Your task to perform on an android device: Search for sushi restaurants on Maps Image 0: 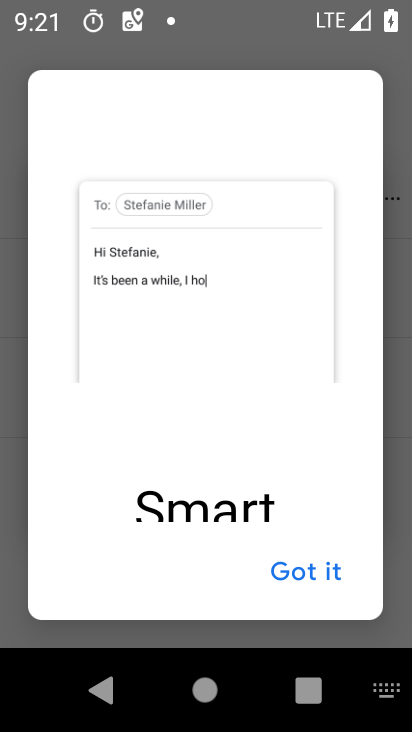
Step 0: click (315, 565)
Your task to perform on an android device: Search for sushi restaurants on Maps Image 1: 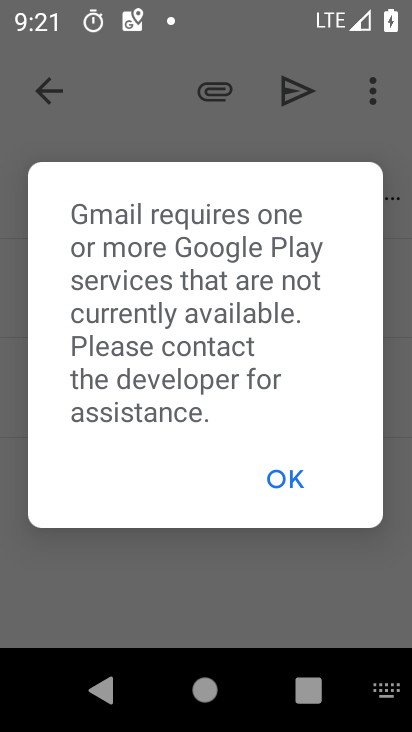
Step 1: press home button
Your task to perform on an android device: Search for sushi restaurants on Maps Image 2: 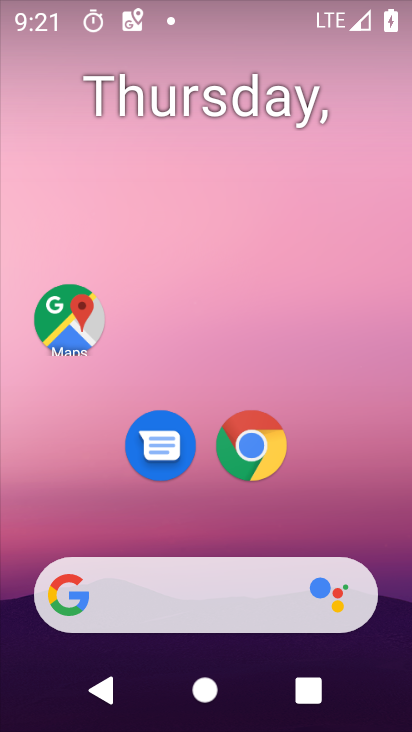
Step 2: drag from (211, 546) to (199, 315)
Your task to perform on an android device: Search for sushi restaurants on Maps Image 3: 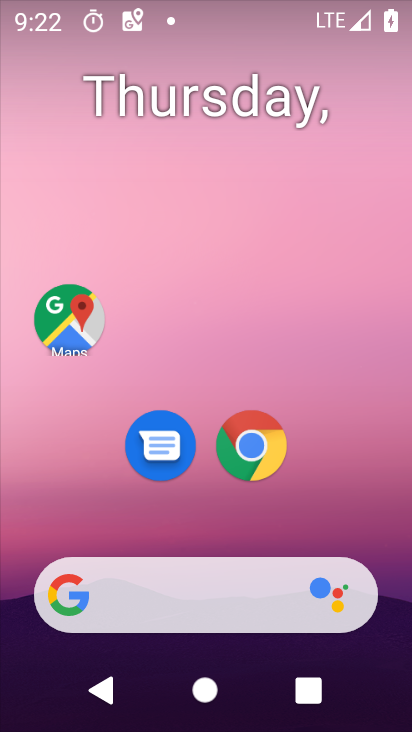
Step 3: drag from (202, 514) to (235, 218)
Your task to perform on an android device: Search for sushi restaurants on Maps Image 4: 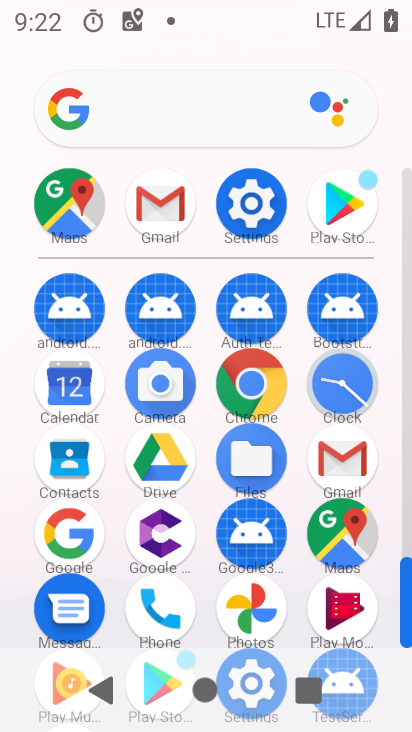
Step 4: drag from (296, 517) to (108, 86)
Your task to perform on an android device: Search for sushi restaurants on Maps Image 5: 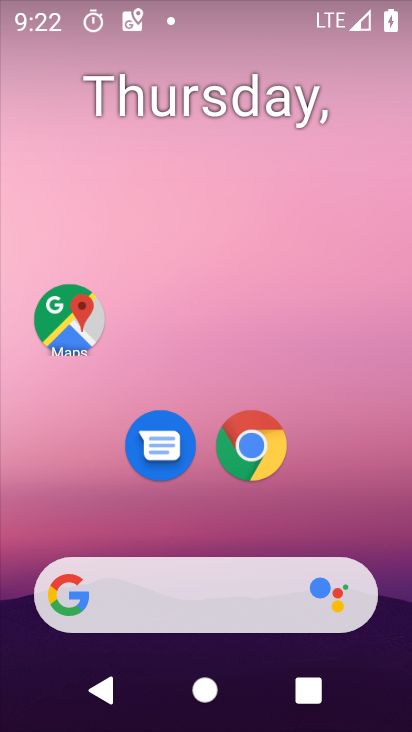
Step 5: drag from (221, 527) to (230, 112)
Your task to perform on an android device: Search for sushi restaurants on Maps Image 6: 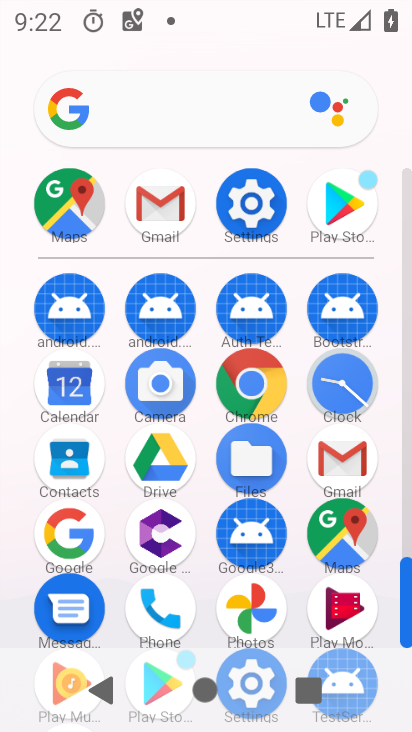
Step 6: click (337, 530)
Your task to perform on an android device: Search for sushi restaurants on Maps Image 7: 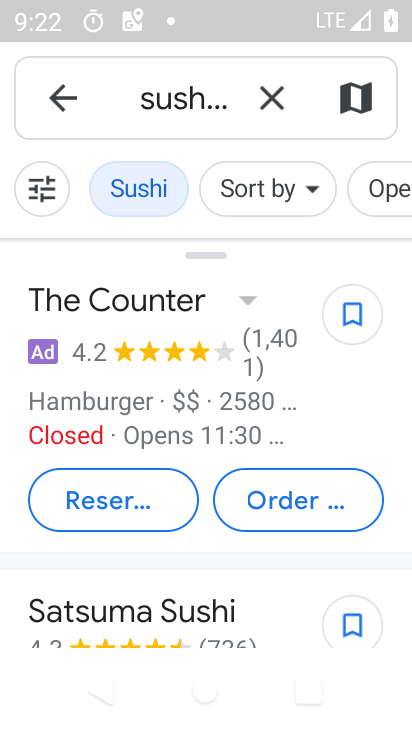
Step 7: task complete